Your task to perform on an android device: Go to notification settings Image 0: 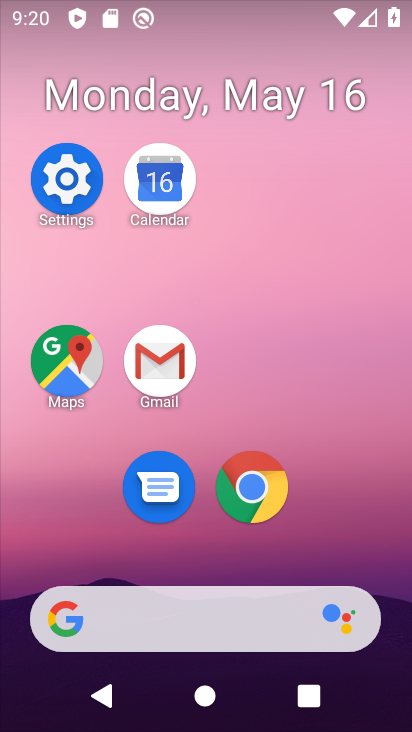
Step 0: click (74, 176)
Your task to perform on an android device: Go to notification settings Image 1: 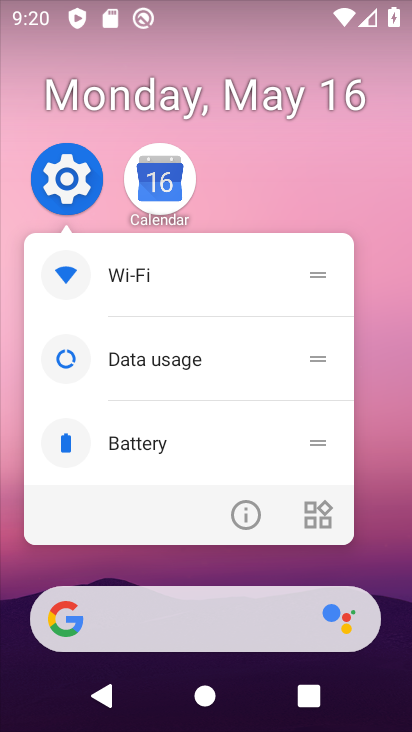
Step 1: click (74, 176)
Your task to perform on an android device: Go to notification settings Image 2: 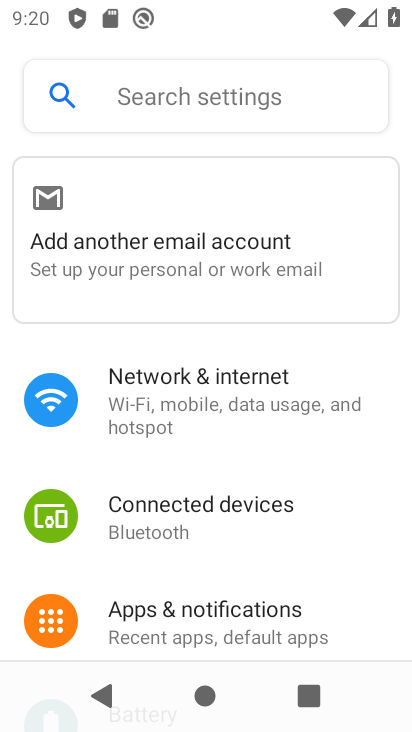
Step 2: click (229, 607)
Your task to perform on an android device: Go to notification settings Image 3: 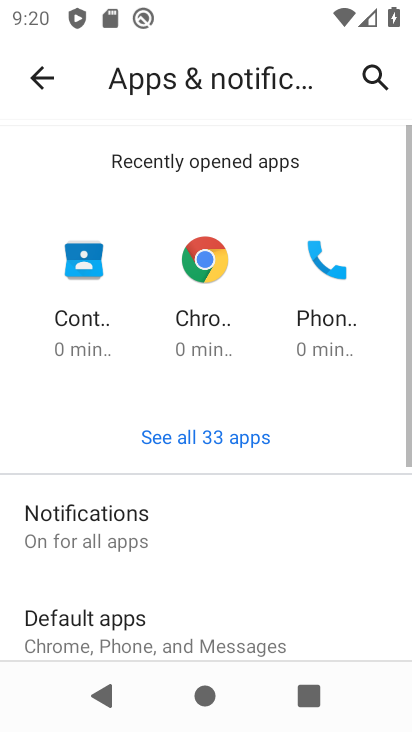
Step 3: task complete